Your task to perform on an android device: Show the shopping cart on ebay. Add razer blade to the cart on ebay, then select checkout. Image 0: 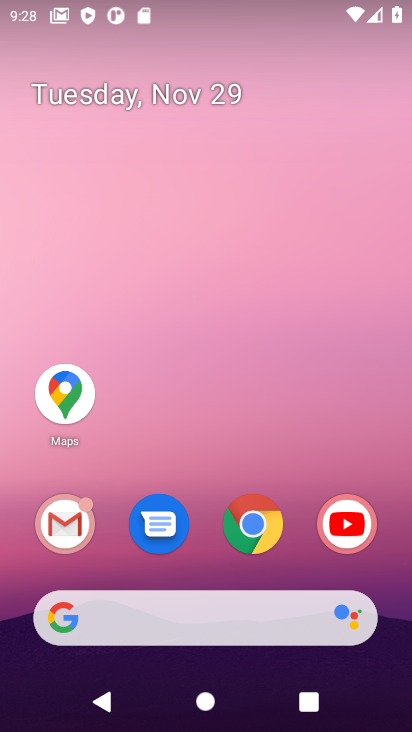
Step 0: click (251, 526)
Your task to perform on an android device: Show the shopping cart on ebay. Add razer blade to the cart on ebay, then select checkout. Image 1: 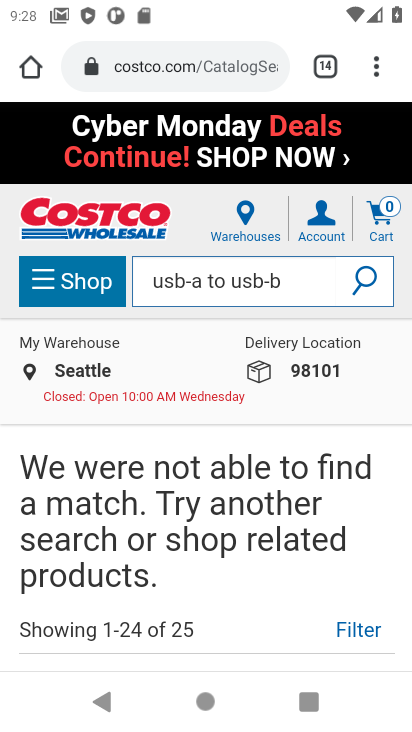
Step 1: click (162, 69)
Your task to perform on an android device: Show the shopping cart on ebay. Add razer blade to the cart on ebay, then select checkout. Image 2: 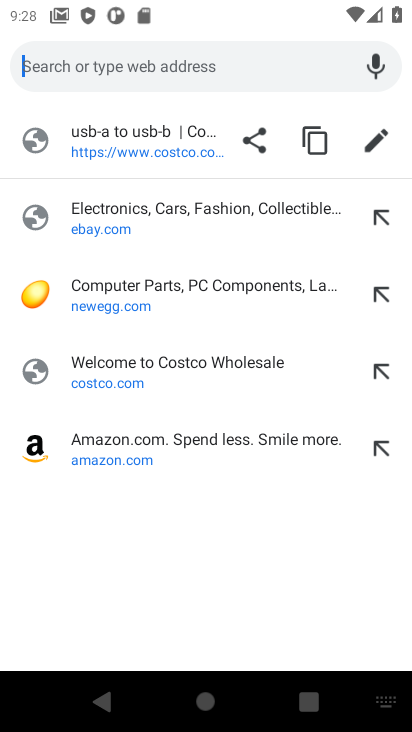
Step 2: click (82, 204)
Your task to perform on an android device: Show the shopping cart on ebay. Add razer blade to the cart on ebay, then select checkout. Image 3: 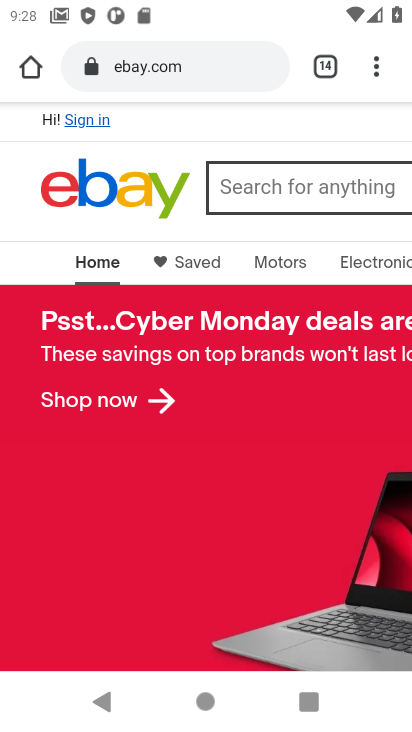
Step 3: drag from (324, 145) to (2, 138)
Your task to perform on an android device: Show the shopping cart on ebay. Add razer blade to the cart on ebay, then select checkout. Image 4: 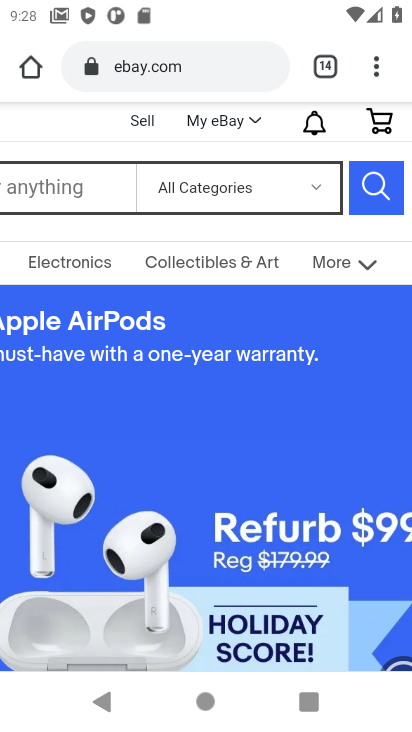
Step 4: click (382, 120)
Your task to perform on an android device: Show the shopping cart on ebay. Add razer blade to the cart on ebay, then select checkout. Image 5: 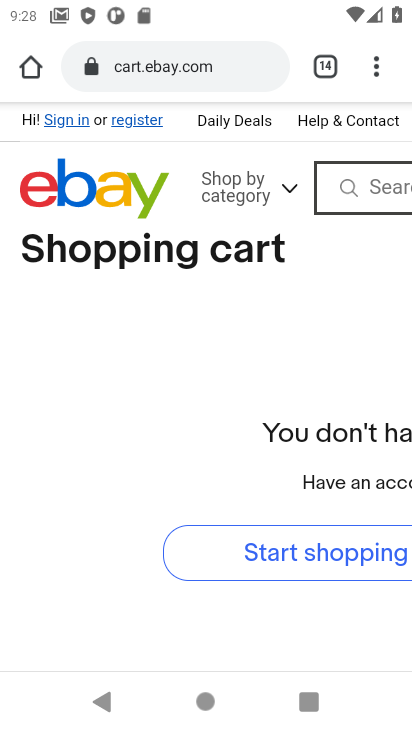
Step 5: drag from (322, 287) to (1, 728)
Your task to perform on an android device: Show the shopping cart on ebay. Add razer blade to the cart on ebay, then select checkout. Image 6: 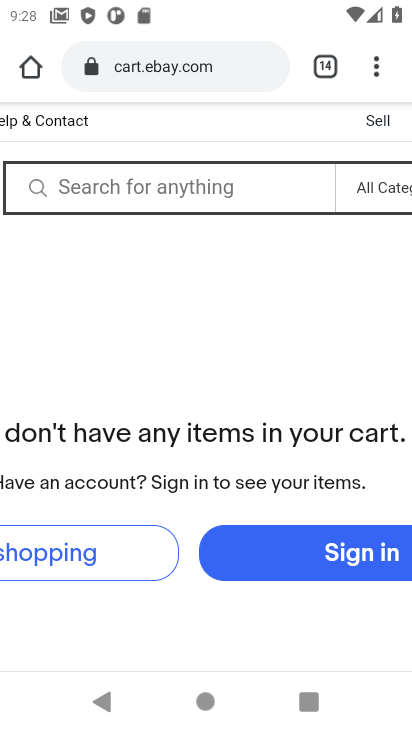
Step 6: click (97, 195)
Your task to perform on an android device: Show the shopping cart on ebay. Add razer blade to the cart on ebay, then select checkout. Image 7: 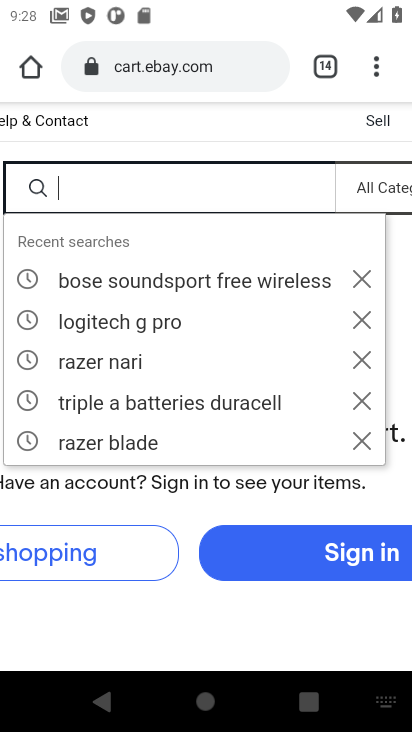
Step 7: type "razer blade "
Your task to perform on an android device: Show the shopping cart on ebay. Add razer blade to the cart on ebay, then select checkout. Image 8: 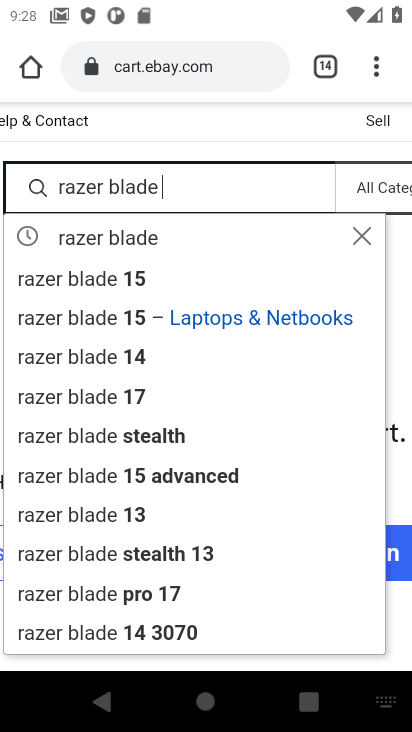
Step 8: click (121, 237)
Your task to perform on an android device: Show the shopping cart on ebay. Add razer blade to the cart on ebay, then select checkout. Image 9: 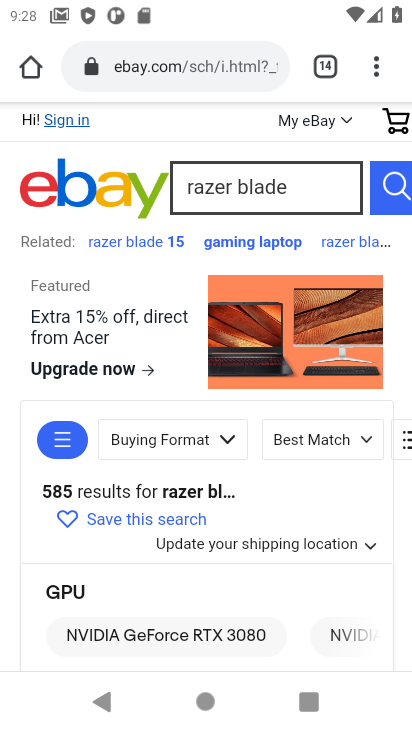
Step 9: drag from (193, 499) to (163, 148)
Your task to perform on an android device: Show the shopping cart on ebay. Add razer blade to the cart on ebay, then select checkout. Image 10: 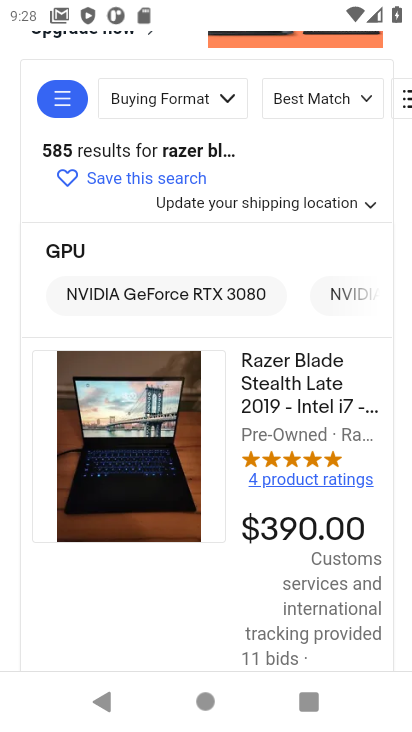
Step 10: drag from (113, 487) to (120, 317)
Your task to perform on an android device: Show the shopping cart on ebay. Add razer blade to the cart on ebay, then select checkout. Image 11: 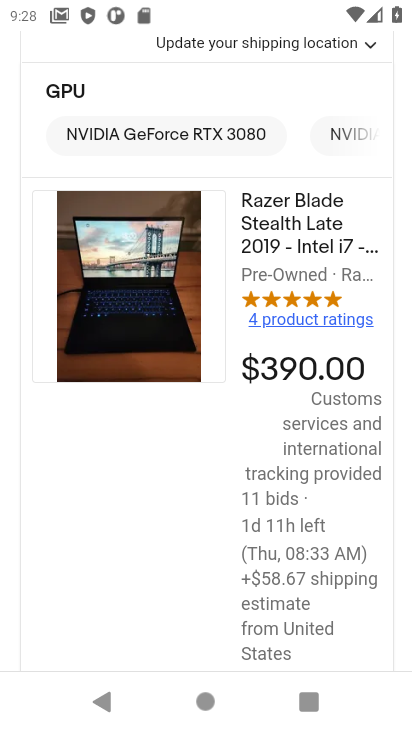
Step 11: click (273, 224)
Your task to perform on an android device: Show the shopping cart on ebay. Add razer blade to the cart on ebay, then select checkout. Image 12: 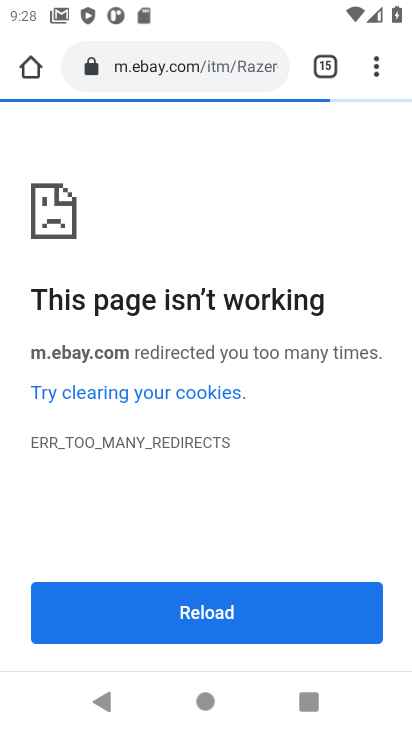
Step 12: task complete